Your task to perform on an android device: Open settings Image 0: 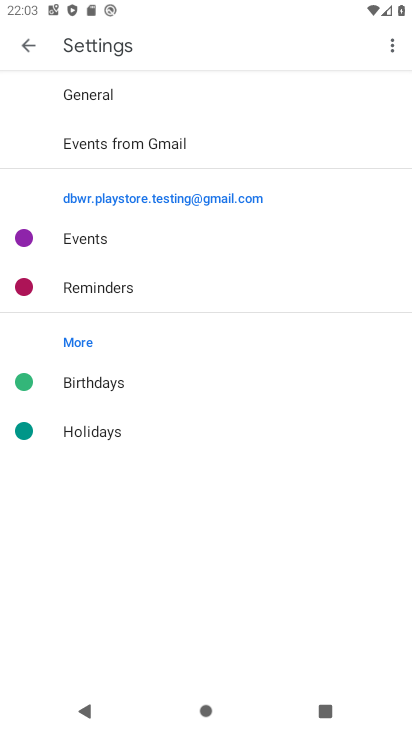
Step 0: press home button
Your task to perform on an android device: Open settings Image 1: 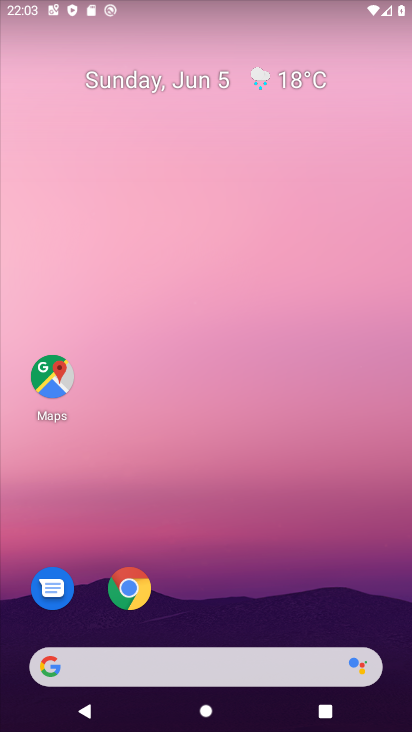
Step 1: drag from (355, 600) to (368, 225)
Your task to perform on an android device: Open settings Image 2: 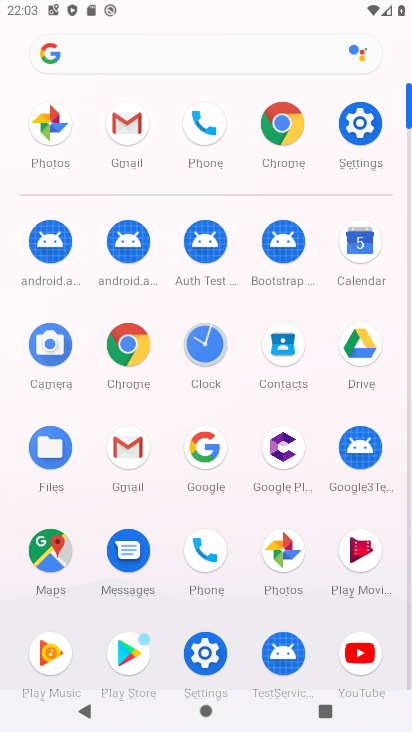
Step 2: click (355, 141)
Your task to perform on an android device: Open settings Image 3: 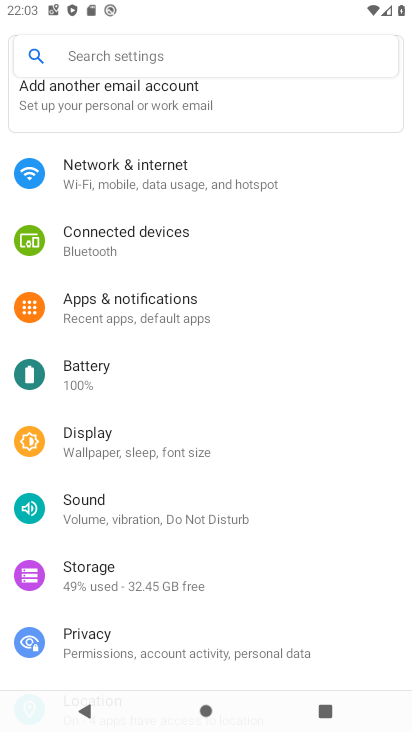
Step 3: task complete